Your task to perform on an android device: Go to Maps Image 0: 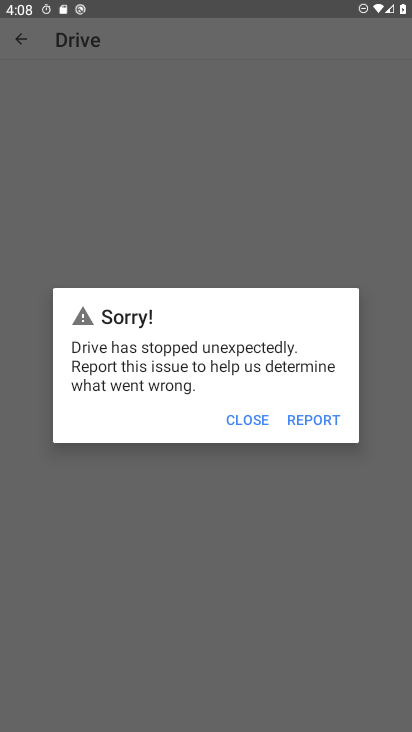
Step 0: click (129, 657)
Your task to perform on an android device: Go to Maps Image 1: 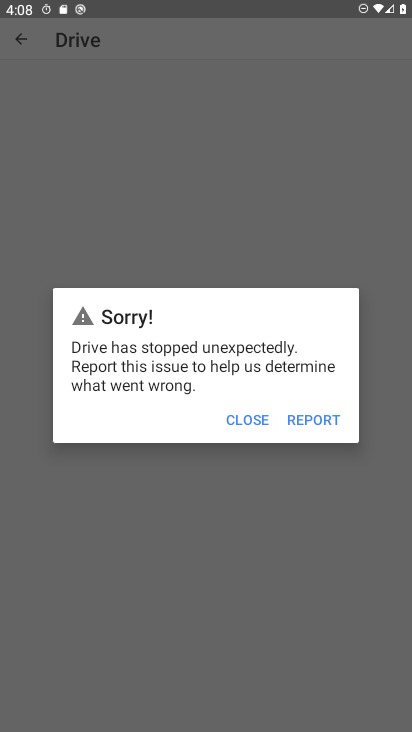
Step 1: press home button
Your task to perform on an android device: Go to Maps Image 2: 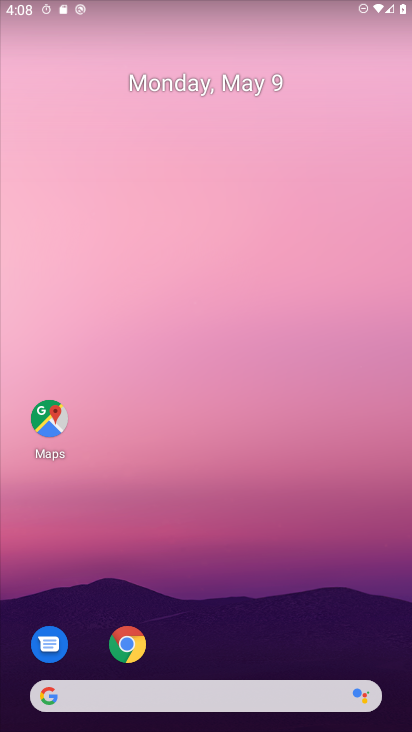
Step 2: click (121, 648)
Your task to perform on an android device: Go to Maps Image 3: 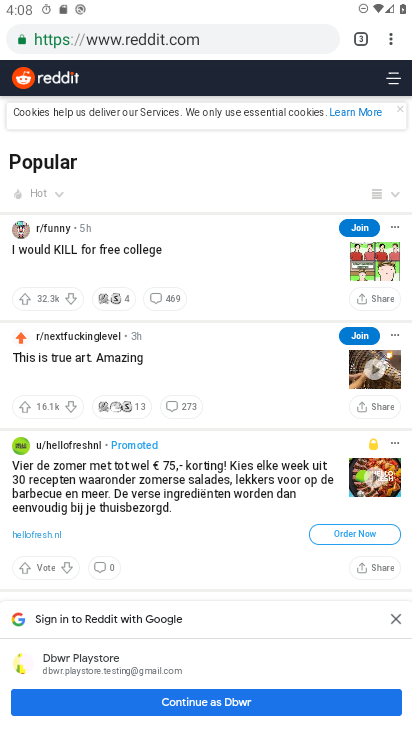
Step 3: press home button
Your task to perform on an android device: Go to Maps Image 4: 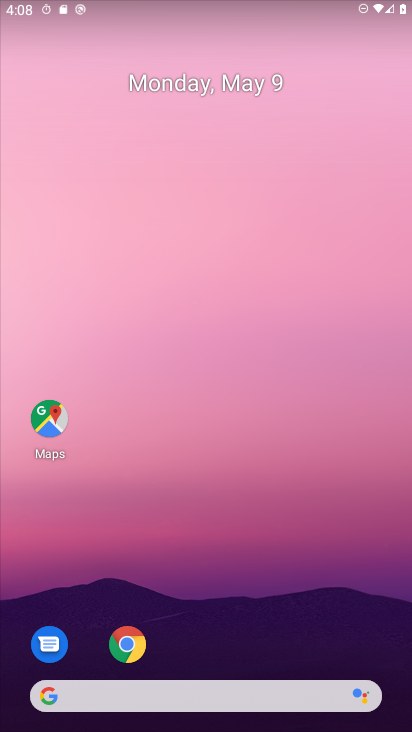
Step 4: click (55, 453)
Your task to perform on an android device: Go to Maps Image 5: 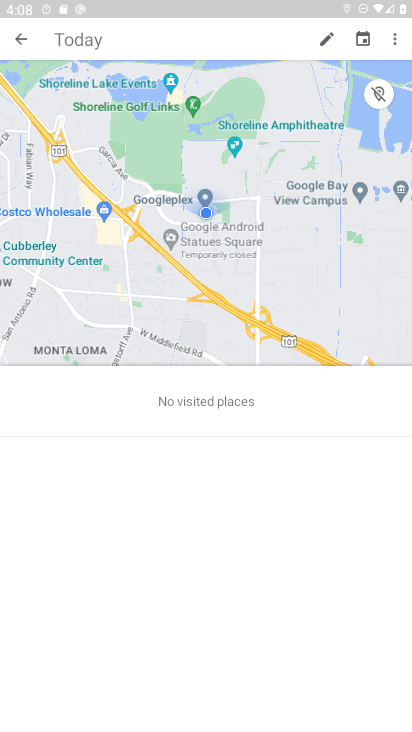
Step 5: task complete